Your task to perform on an android device: turn off airplane mode Image 0: 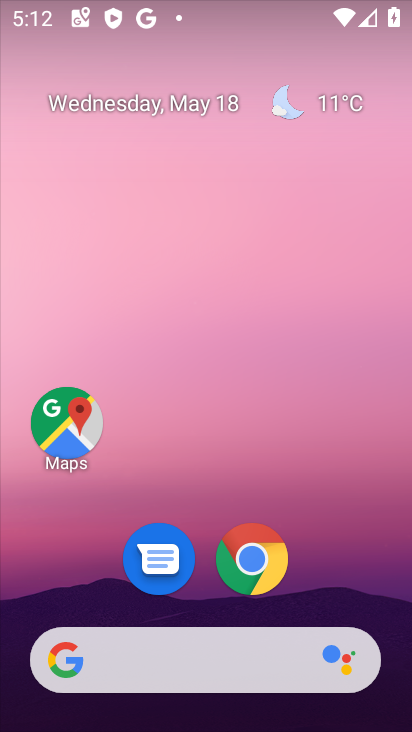
Step 0: drag from (324, 21) to (348, 573)
Your task to perform on an android device: turn off airplane mode Image 1: 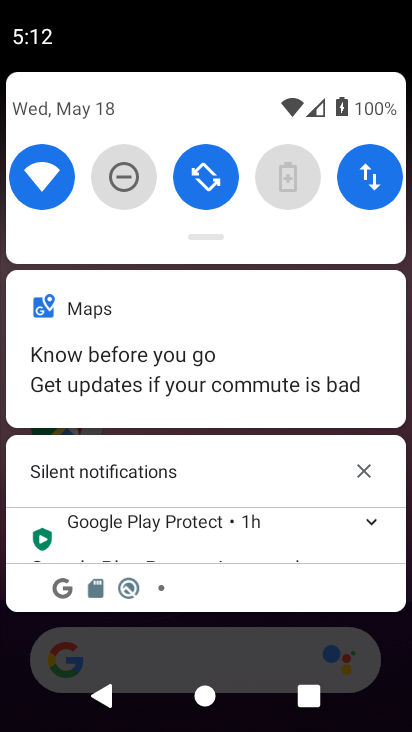
Step 1: task complete